Your task to perform on an android device: Go to privacy settings Image 0: 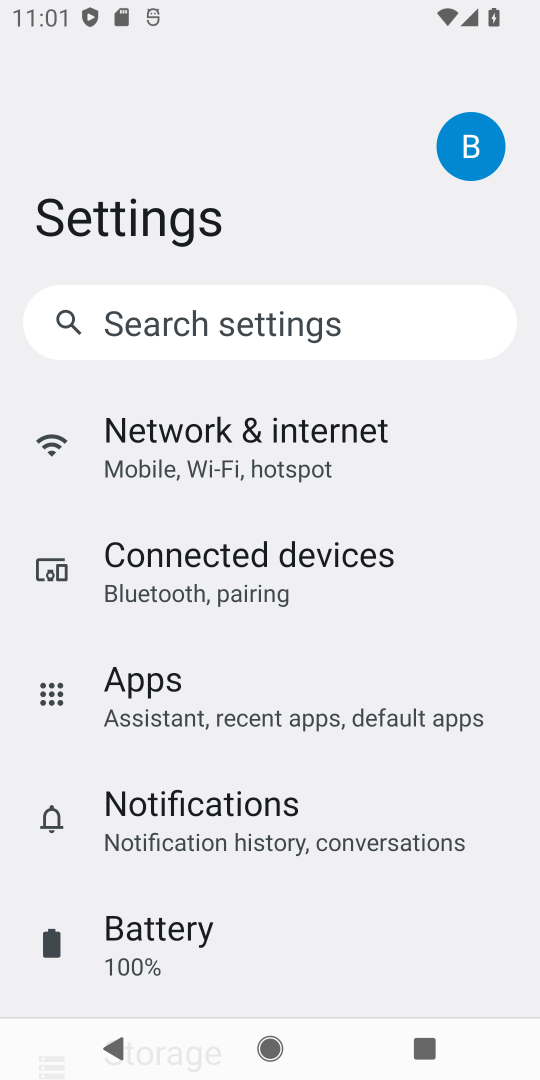
Step 0: press home button
Your task to perform on an android device: Go to privacy settings Image 1: 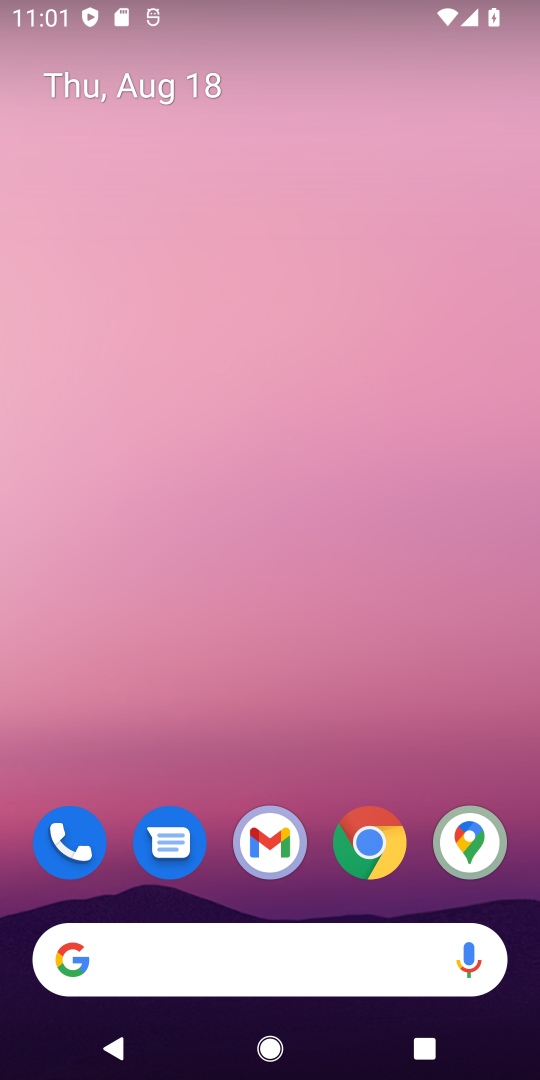
Step 1: drag from (302, 676) to (279, 239)
Your task to perform on an android device: Go to privacy settings Image 2: 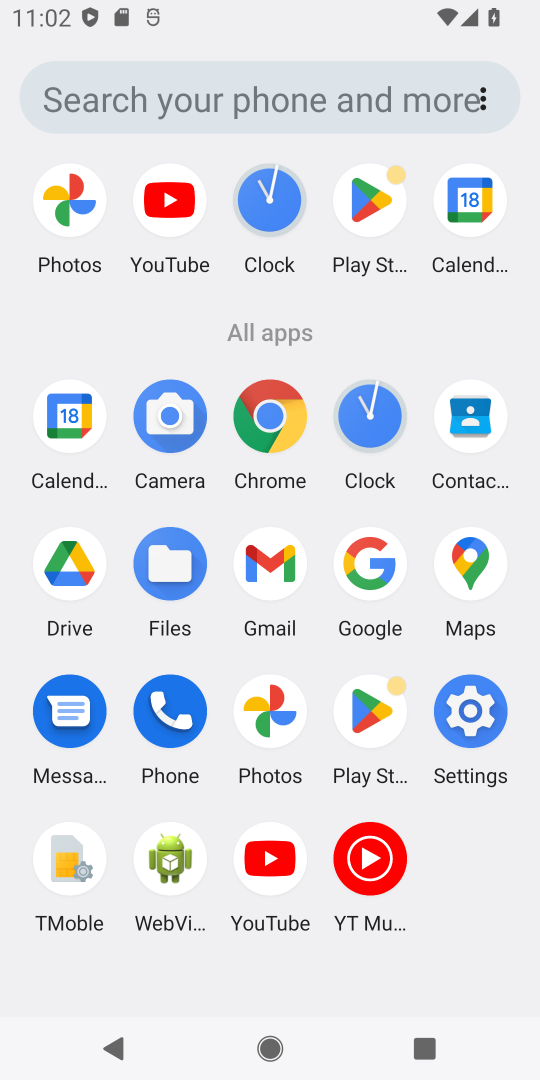
Step 2: click (453, 690)
Your task to perform on an android device: Go to privacy settings Image 3: 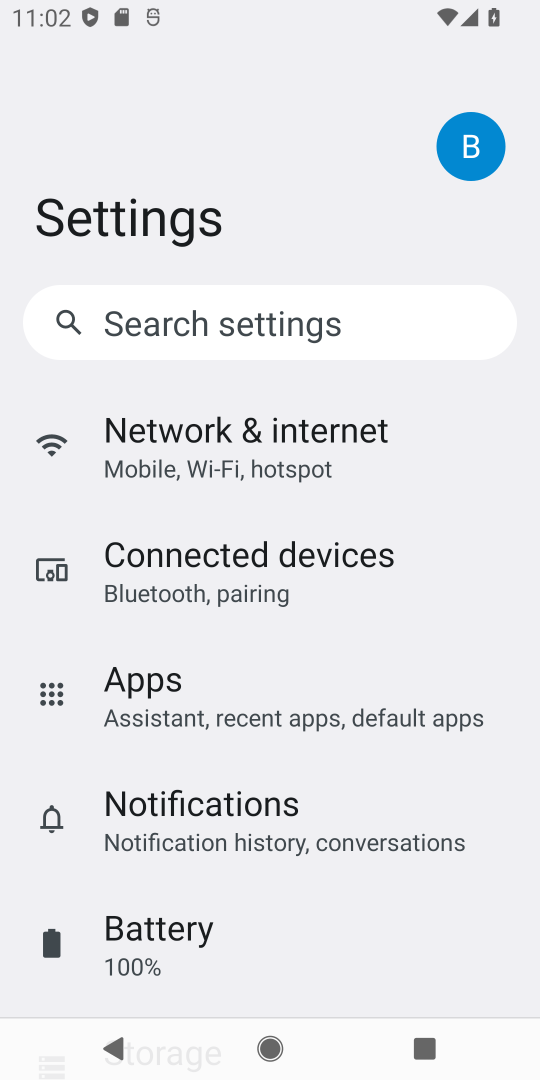
Step 3: drag from (366, 938) to (397, 253)
Your task to perform on an android device: Go to privacy settings Image 4: 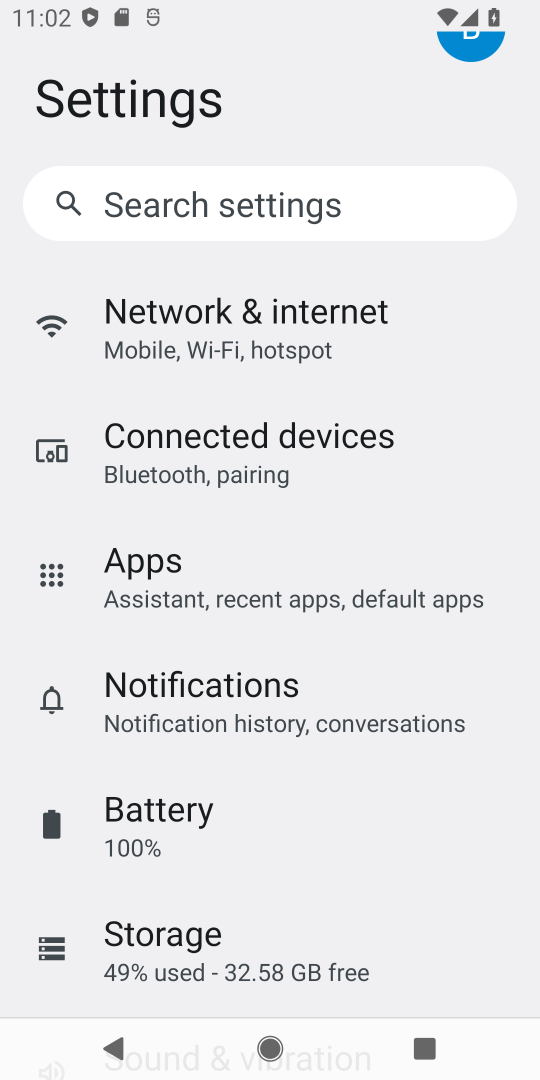
Step 4: drag from (215, 902) to (264, 172)
Your task to perform on an android device: Go to privacy settings Image 5: 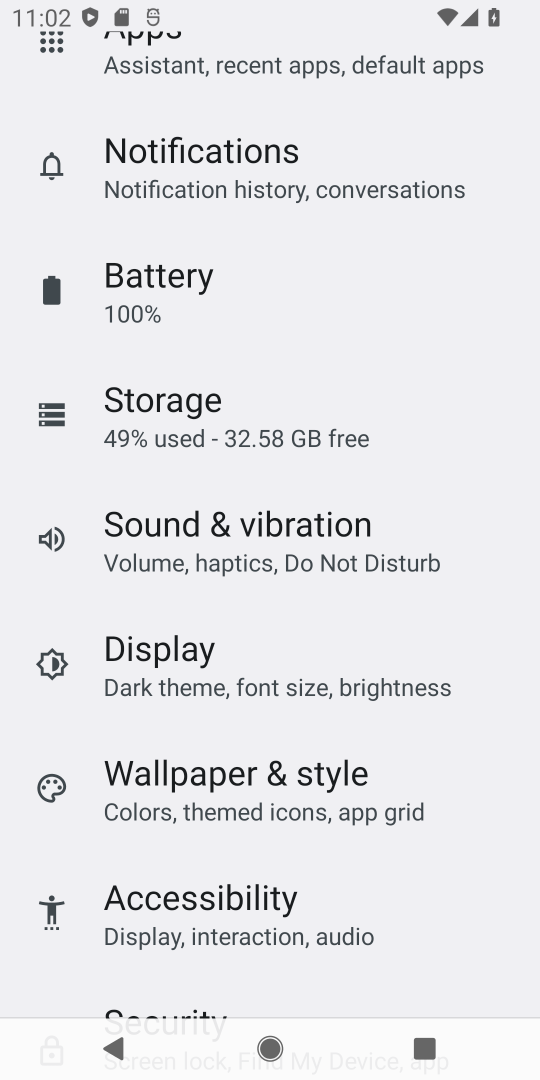
Step 5: drag from (258, 847) to (317, 231)
Your task to perform on an android device: Go to privacy settings Image 6: 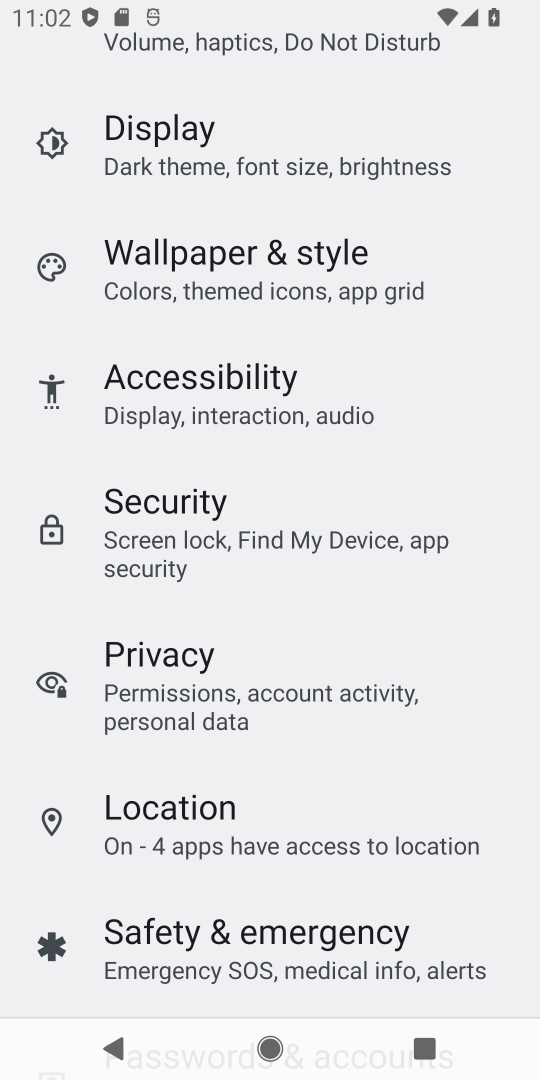
Step 6: click (221, 713)
Your task to perform on an android device: Go to privacy settings Image 7: 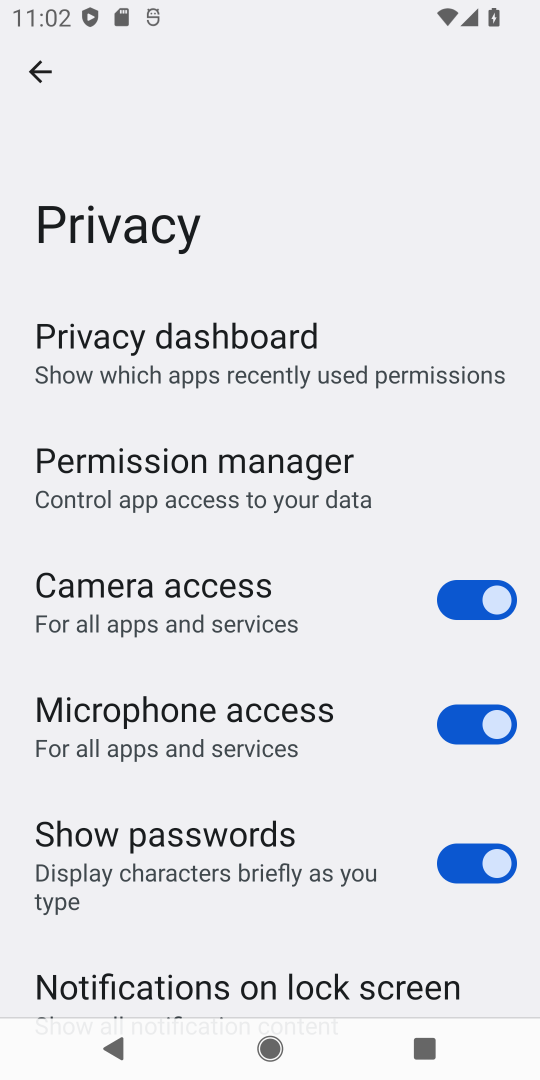
Step 7: task complete